Your task to perform on an android device: Go to Maps Image 0: 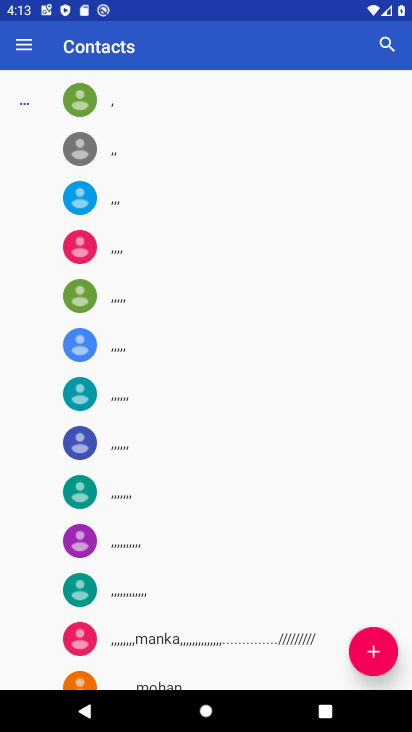
Step 0: press home button
Your task to perform on an android device: Go to Maps Image 1: 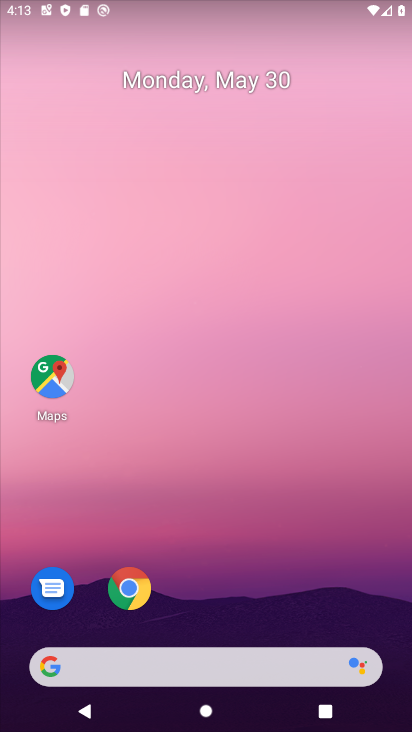
Step 1: click (46, 367)
Your task to perform on an android device: Go to Maps Image 2: 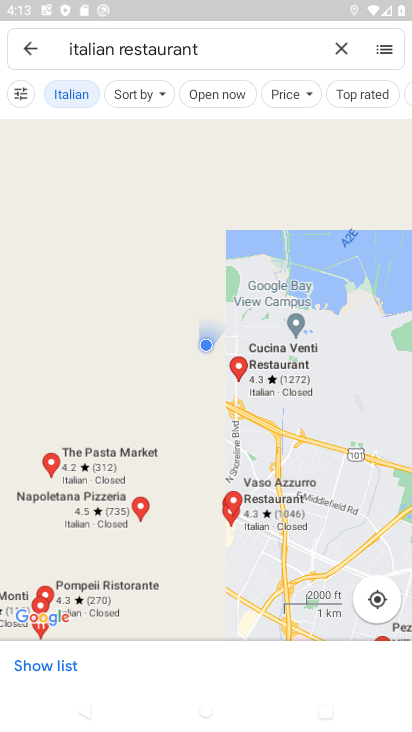
Step 2: click (345, 43)
Your task to perform on an android device: Go to Maps Image 3: 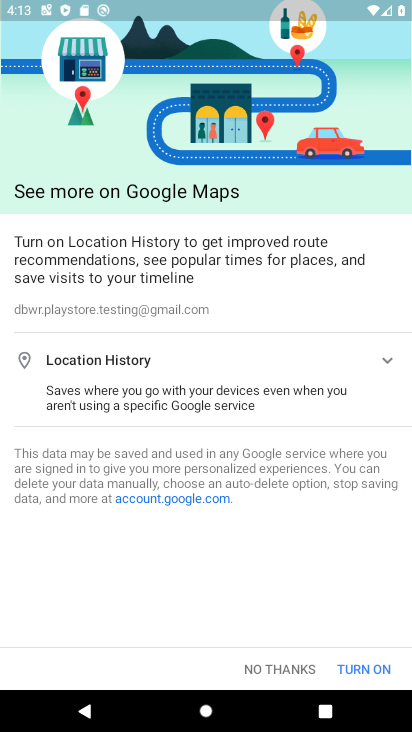
Step 3: click (305, 667)
Your task to perform on an android device: Go to Maps Image 4: 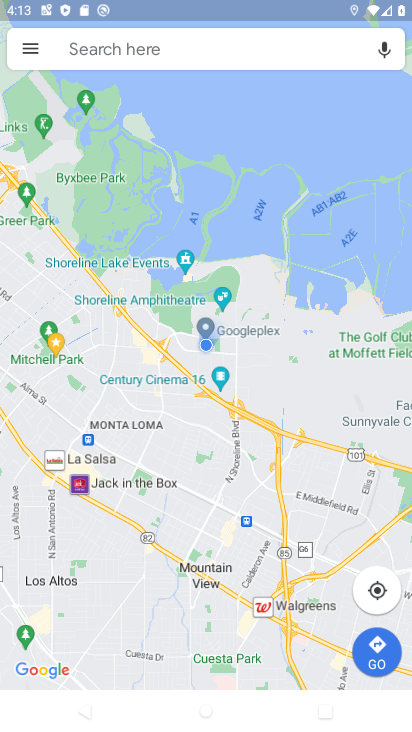
Step 4: task complete